Your task to perform on an android device: add a contact Image 0: 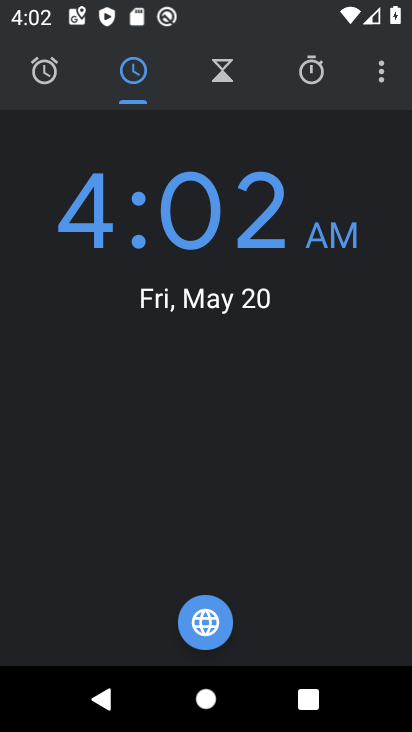
Step 0: press back button
Your task to perform on an android device: add a contact Image 1: 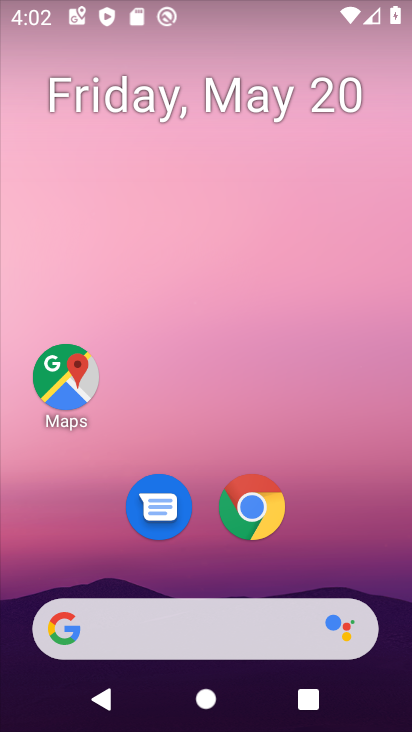
Step 1: drag from (354, 528) to (252, 131)
Your task to perform on an android device: add a contact Image 2: 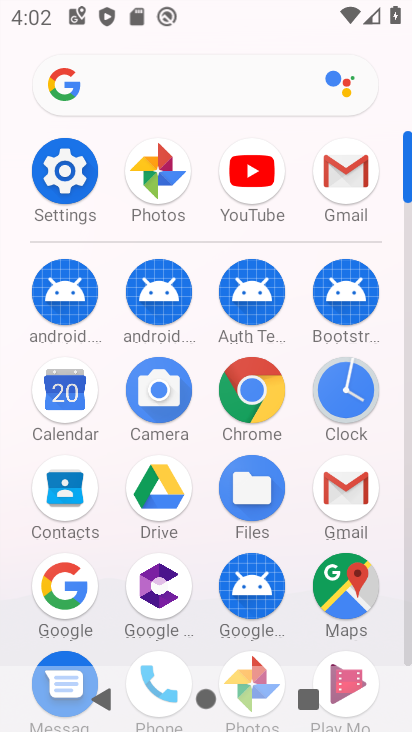
Step 2: click (69, 486)
Your task to perform on an android device: add a contact Image 3: 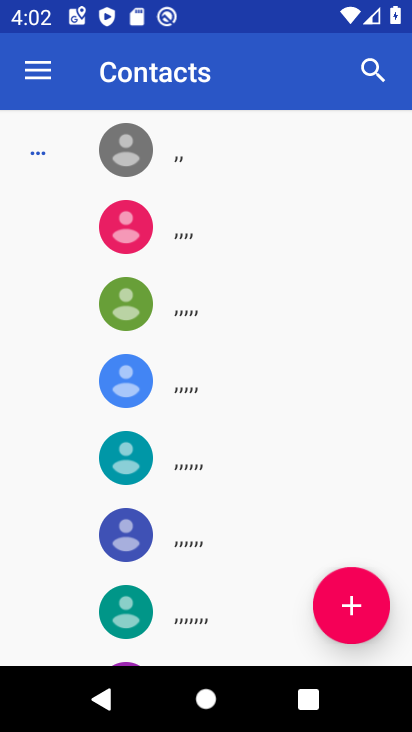
Step 3: click (351, 606)
Your task to perform on an android device: add a contact Image 4: 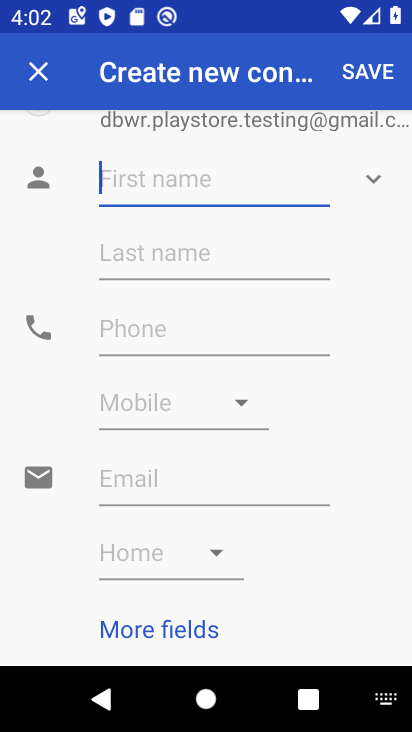
Step 4: click (167, 186)
Your task to perform on an android device: add a contact Image 5: 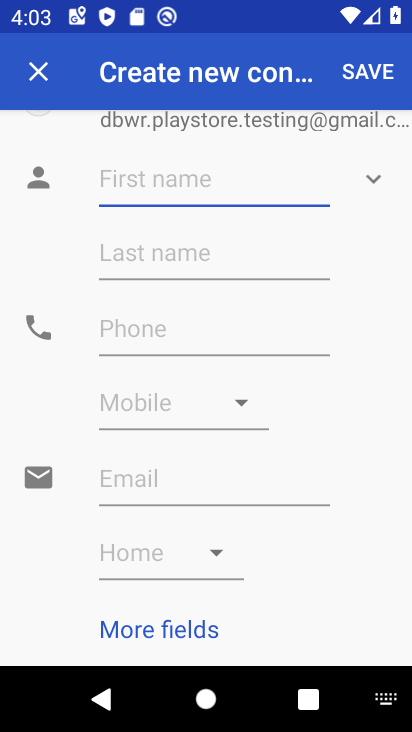
Step 5: type "jevagal"
Your task to perform on an android device: add a contact Image 6: 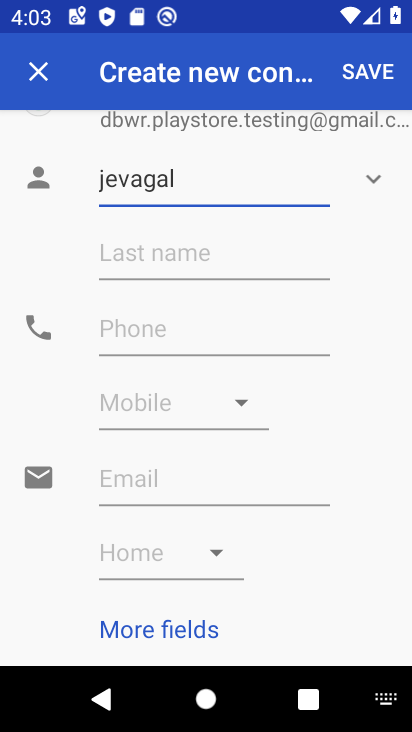
Step 6: click (143, 256)
Your task to perform on an android device: add a contact Image 7: 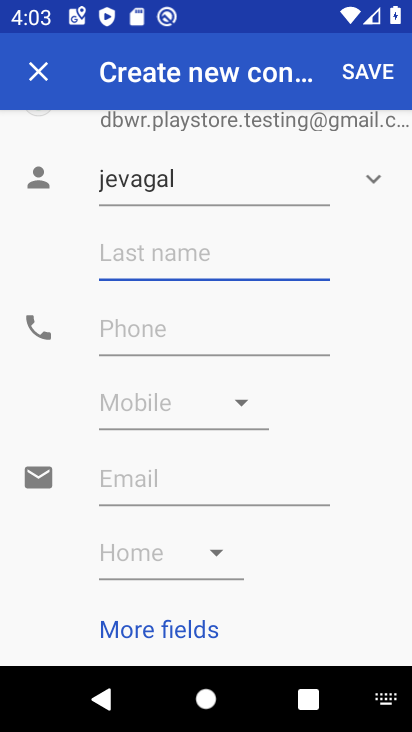
Step 7: type "srinath"
Your task to perform on an android device: add a contact Image 8: 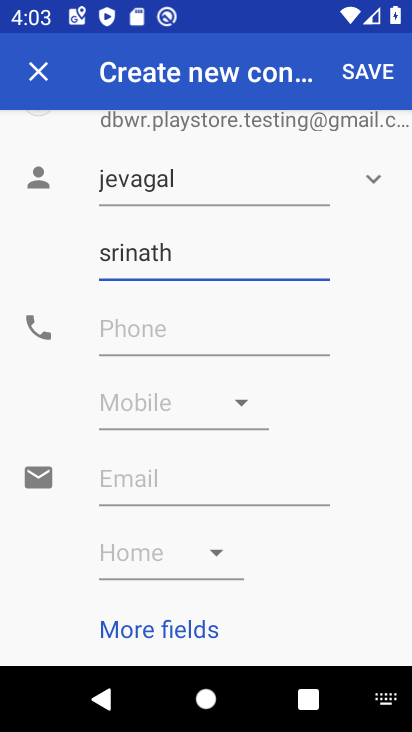
Step 8: click (179, 344)
Your task to perform on an android device: add a contact Image 9: 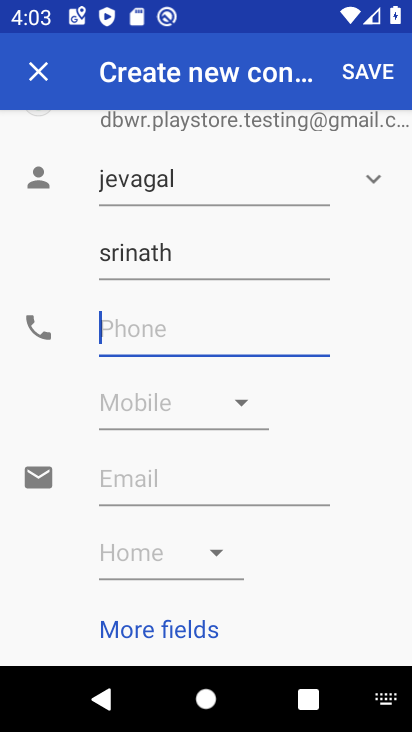
Step 9: type "09877654321"
Your task to perform on an android device: add a contact Image 10: 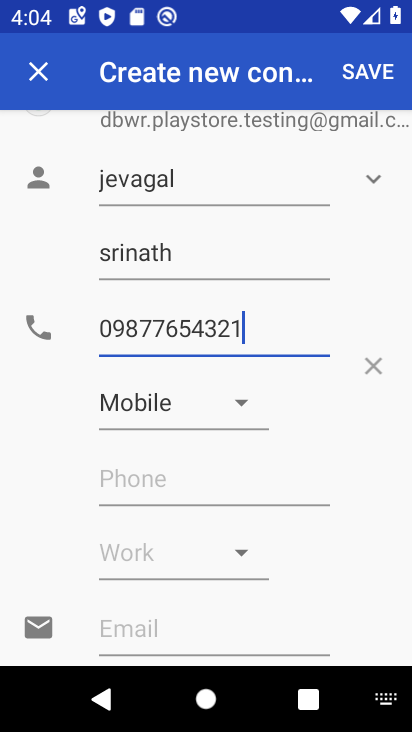
Step 10: click (388, 70)
Your task to perform on an android device: add a contact Image 11: 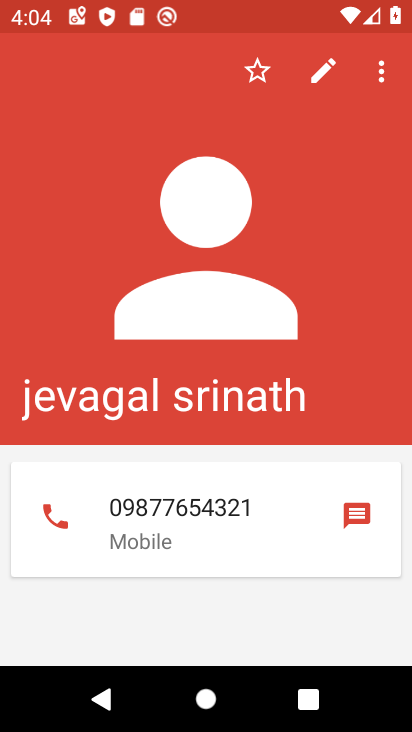
Step 11: task complete